Your task to perform on an android device: Find coffee shops on Maps Image 0: 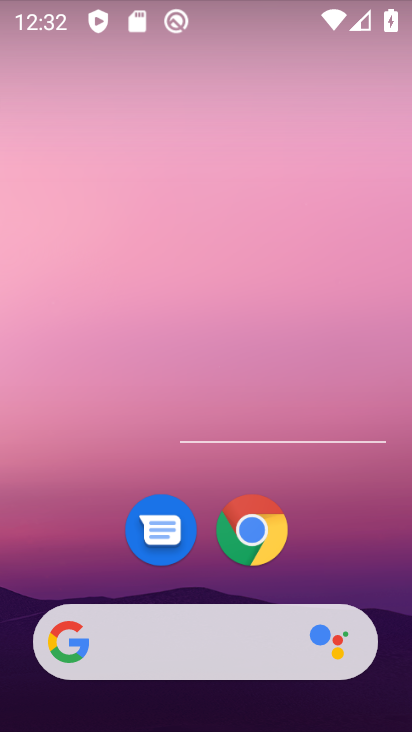
Step 0: click (63, 394)
Your task to perform on an android device: Find coffee shops on Maps Image 1: 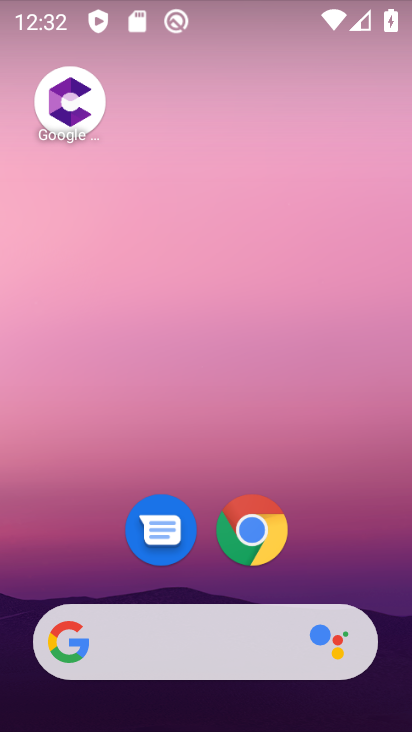
Step 1: drag from (209, 560) to (253, 154)
Your task to perform on an android device: Find coffee shops on Maps Image 2: 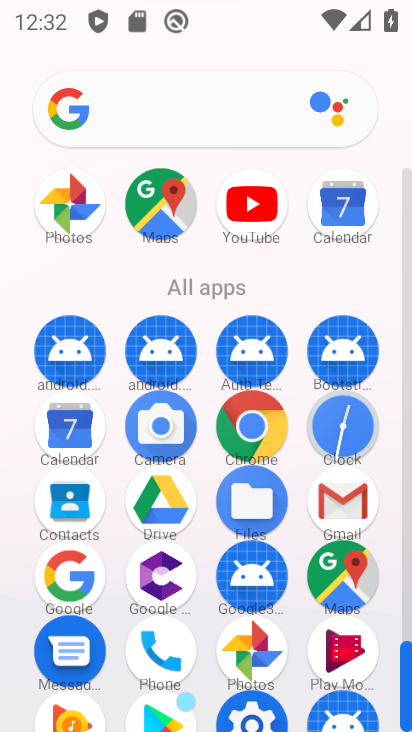
Step 2: click (350, 577)
Your task to perform on an android device: Find coffee shops on Maps Image 3: 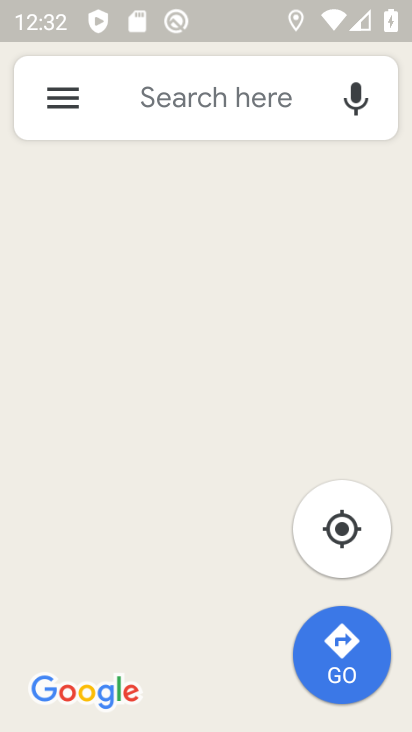
Step 3: click (167, 80)
Your task to perform on an android device: Find coffee shops on Maps Image 4: 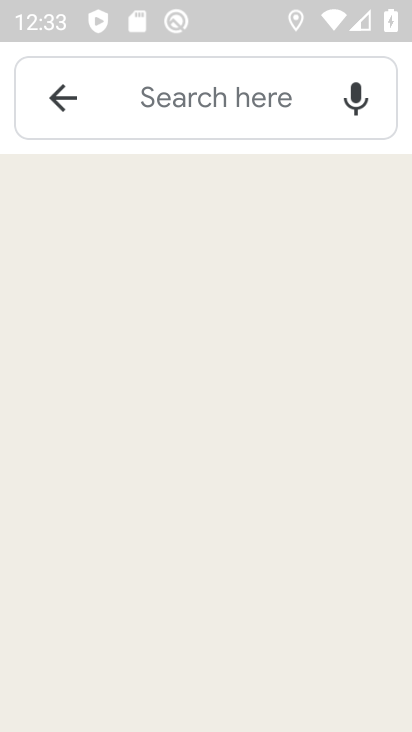
Step 4: click (193, 97)
Your task to perform on an android device: Find coffee shops on Maps Image 5: 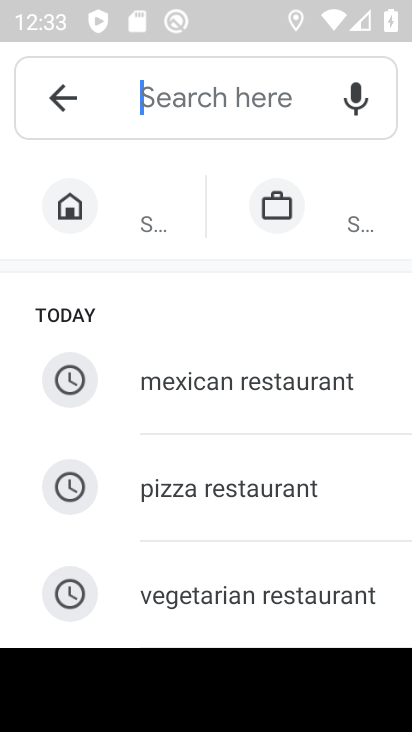
Step 5: click (192, 87)
Your task to perform on an android device: Find coffee shops on Maps Image 6: 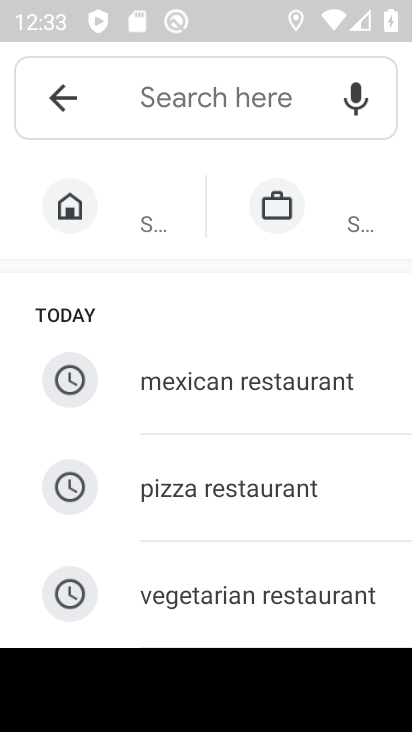
Step 6: type "coffee shops "
Your task to perform on an android device: Find coffee shops on Maps Image 7: 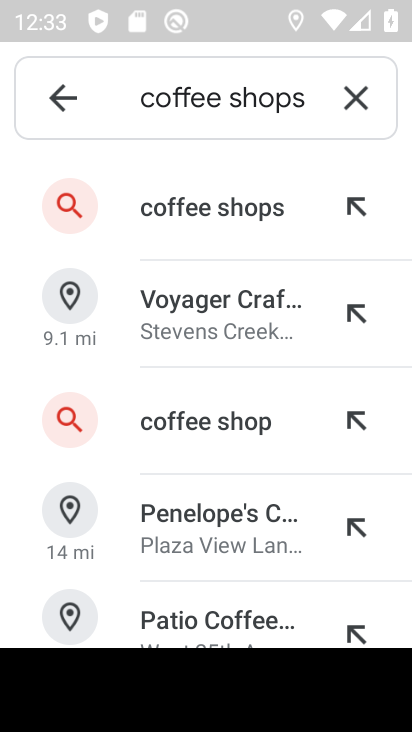
Step 7: click (231, 205)
Your task to perform on an android device: Find coffee shops on Maps Image 8: 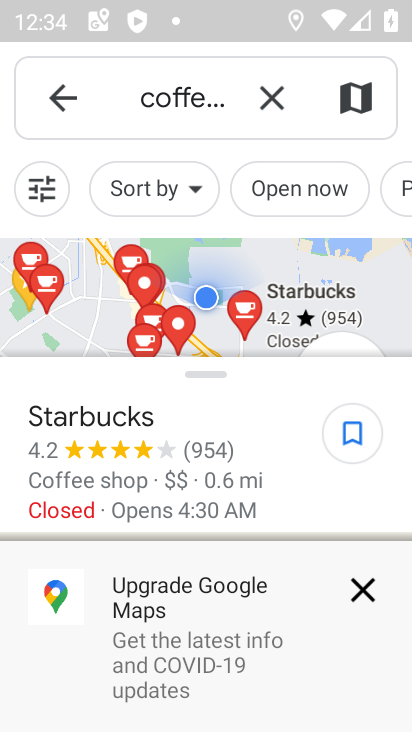
Step 8: task complete